Your task to perform on an android device: open app "Spotify: Music and Podcasts" (install if not already installed) Image 0: 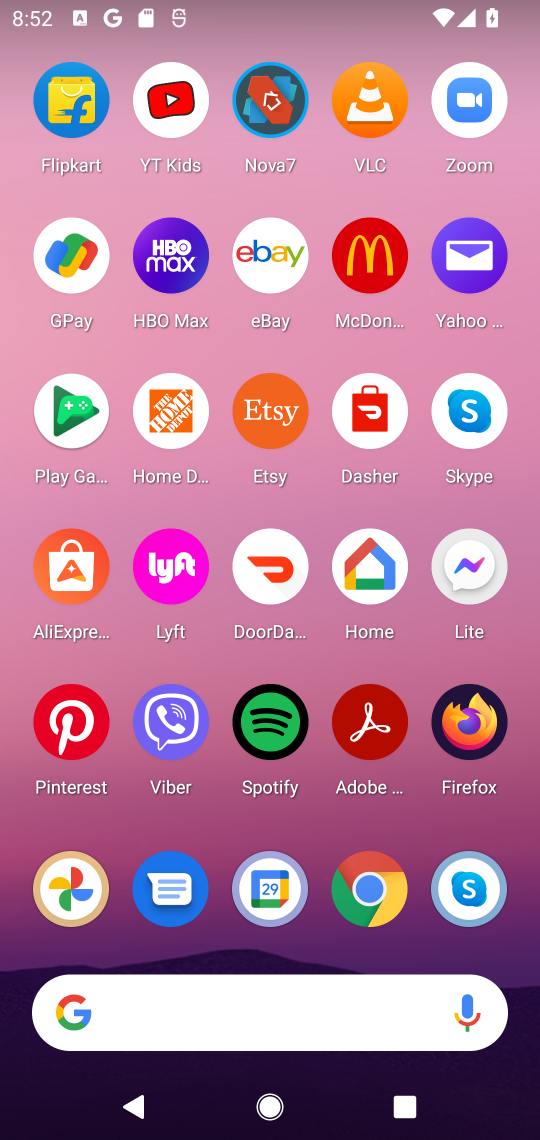
Step 0: press home button
Your task to perform on an android device: open app "Spotify: Music and Podcasts" (install if not already installed) Image 1: 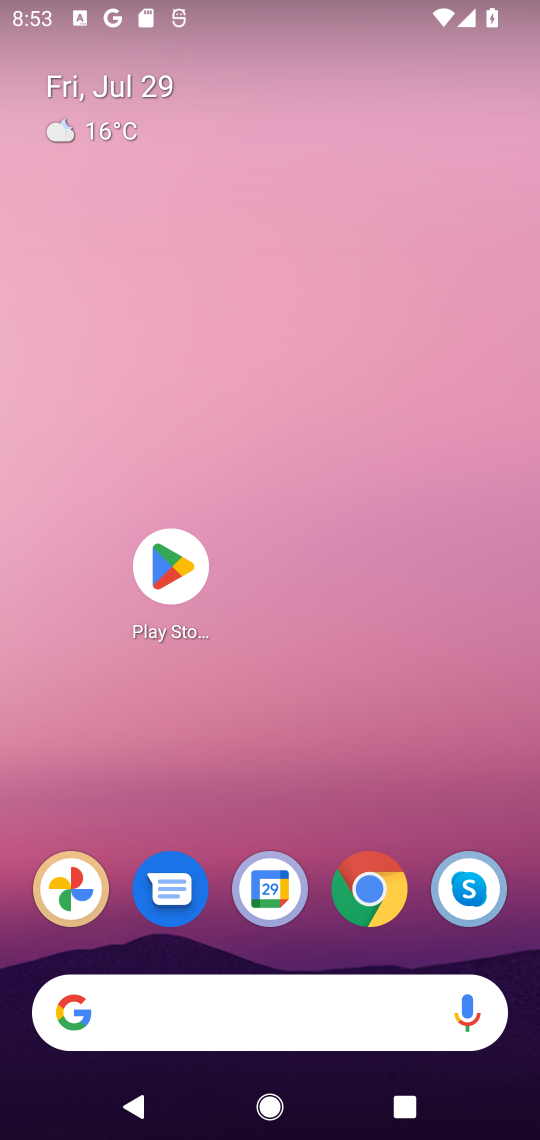
Step 1: click (172, 563)
Your task to perform on an android device: open app "Spotify: Music and Podcasts" (install if not already installed) Image 2: 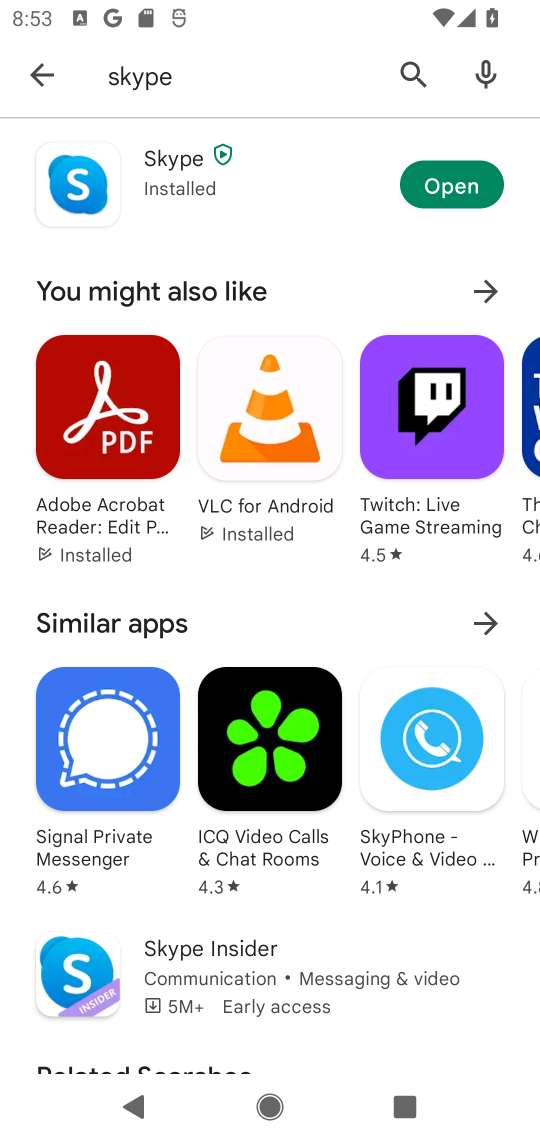
Step 2: click (413, 73)
Your task to perform on an android device: open app "Spotify: Music and Podcasts" (install if not already installed) Image 3: 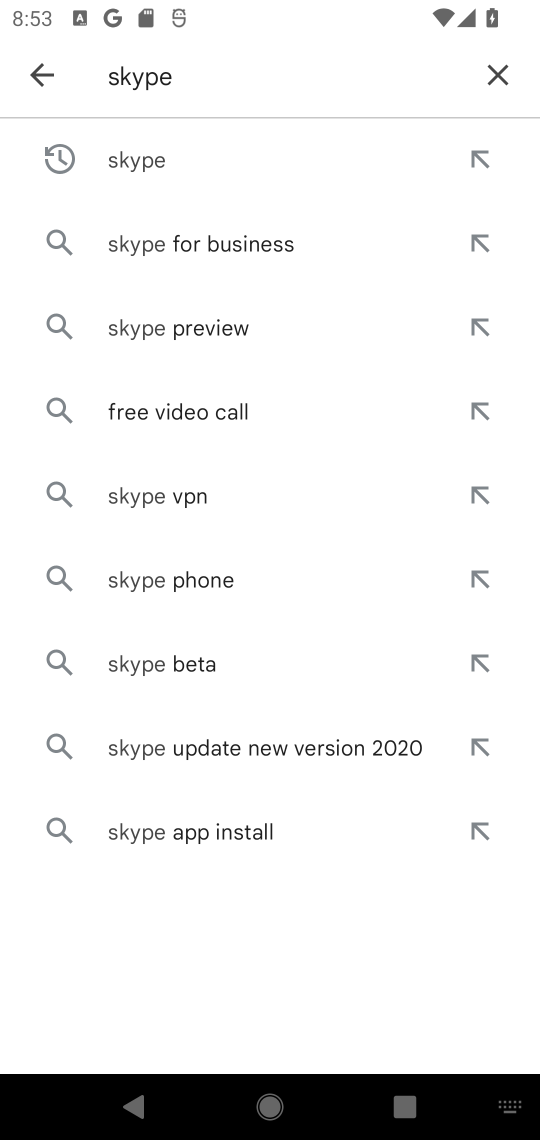
Step 3: click (504, 65)
Your task to perform on an android device: open app "Spotify: Music and Podcasts" (install if not already installed) Image 4: 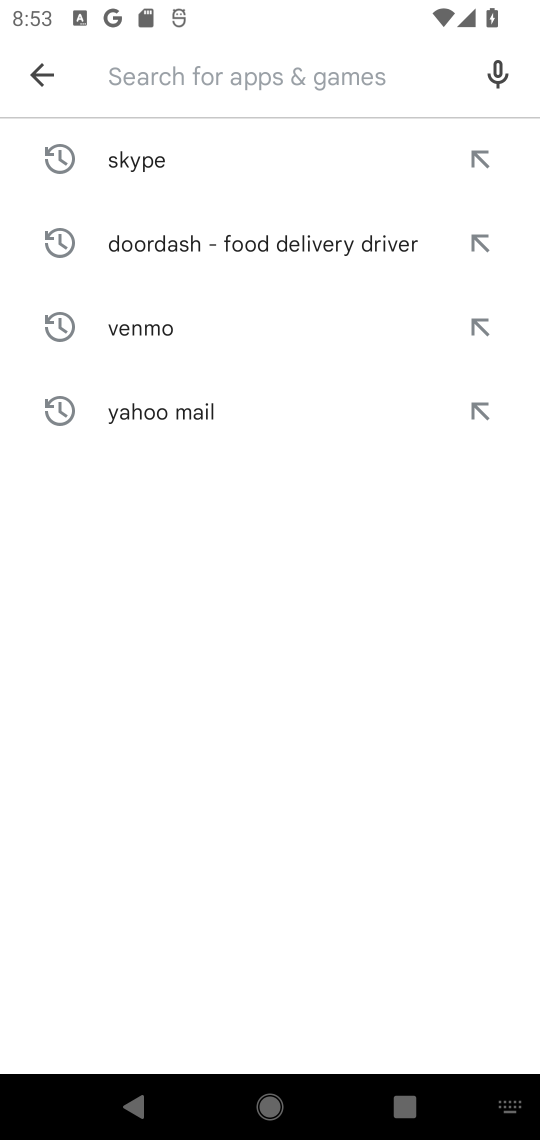
Step 4: type "Spotify: Music and Podcasts"
Your task to perform on an android device: open app "Spotify: Music and Podcasts" (install if not already installed) Image 5: 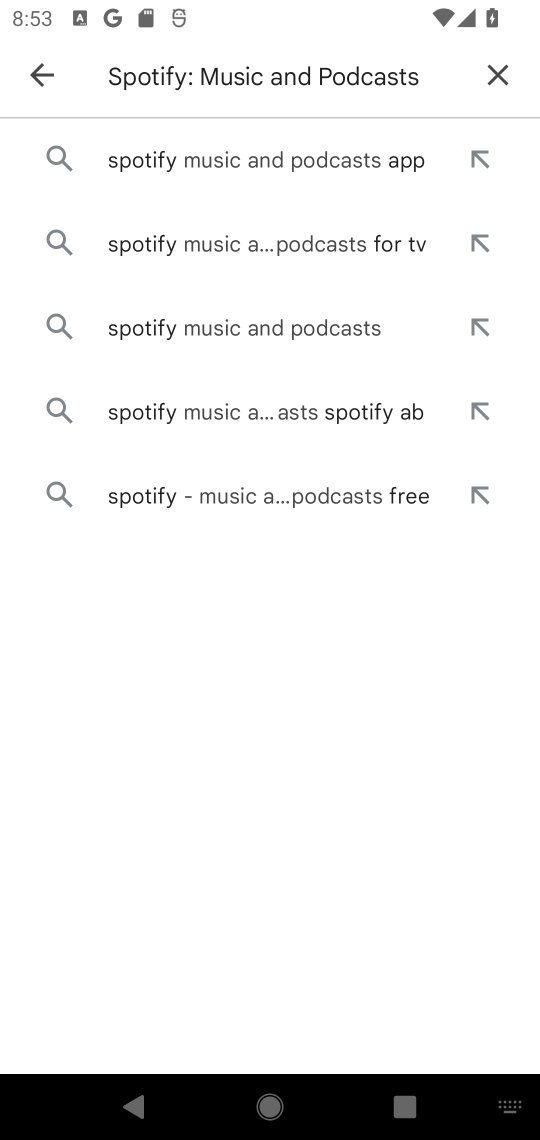
Step 5: click (297, 156)
Your task to perform on an android device: open app "Spotify: Music and Podcasts" (install if not already installed) Image 6: 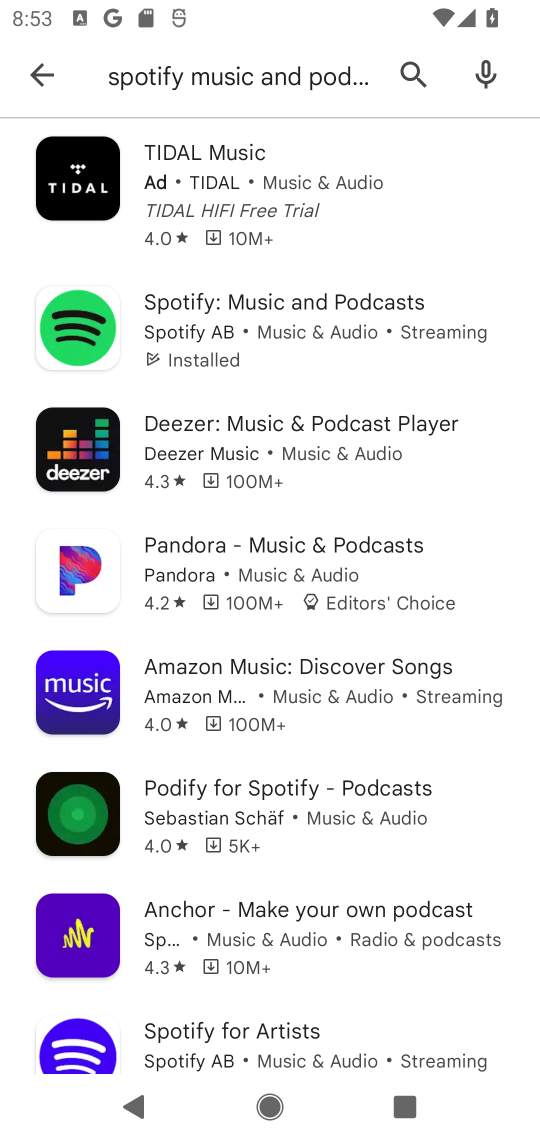
Step 6: click (216, 326)
Your task to perform on an android device: open app "Spotify: Music and Podcasts" (install if not already installed) Image 7: 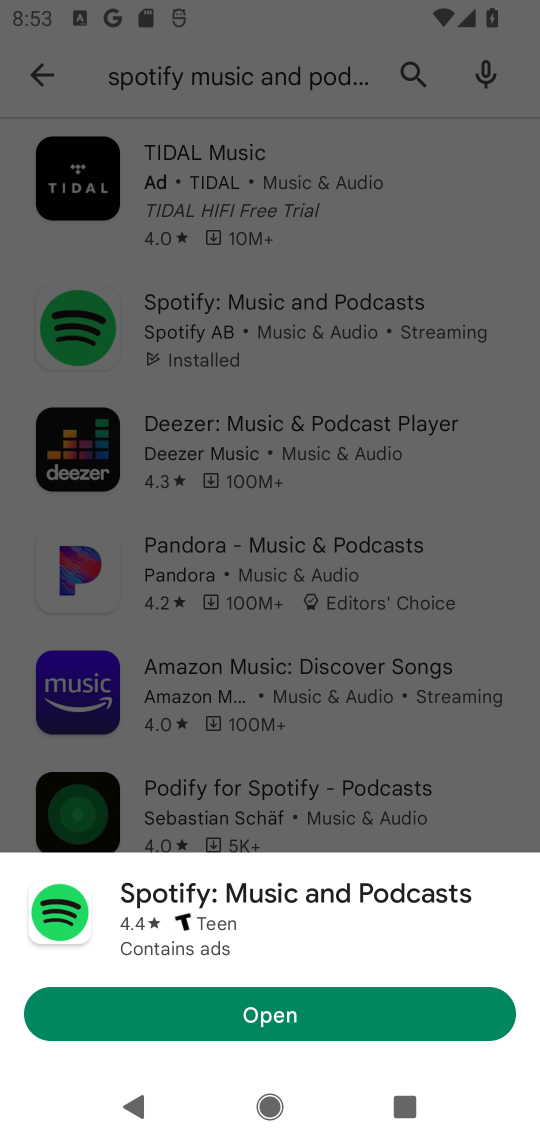
Step 7: click (255, 1015)
Your task to perform on an android device: open app "Spotify: Music and Podcasts" (install if not already installed) Image 8: 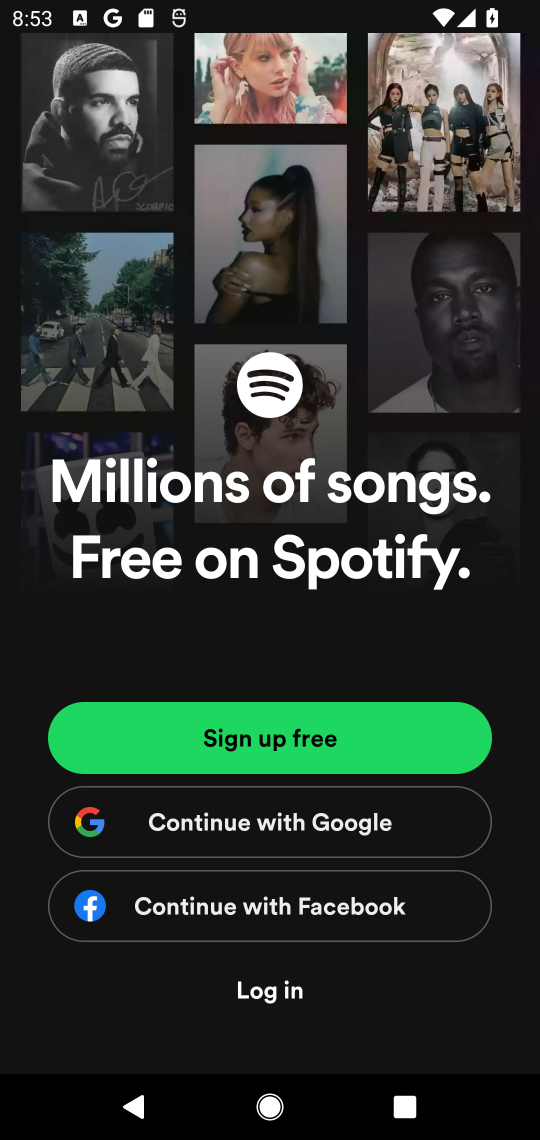
Step 8: task complete